Your task to perform on an android device: Play the last video I watched on Youtube Image 0: 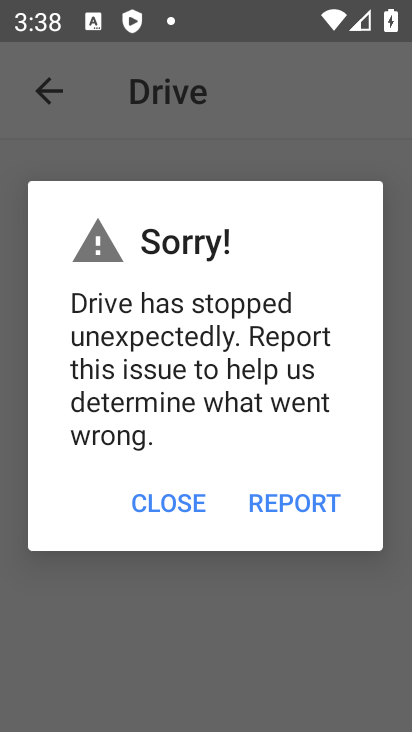
Step 0: press home button
Your task to perform on an android device: Play the last video I watched on Youtube Image 1: 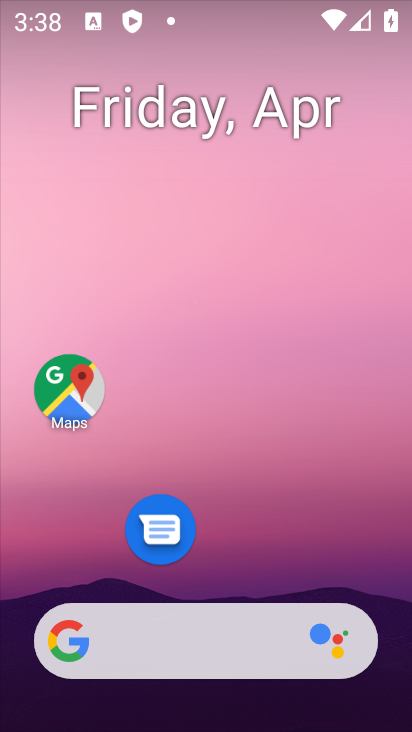
Step 1: drag from (275, 602) to (287, 346)
Your task to perform on an android device: Play the last video I watched on Youtube Image 2: 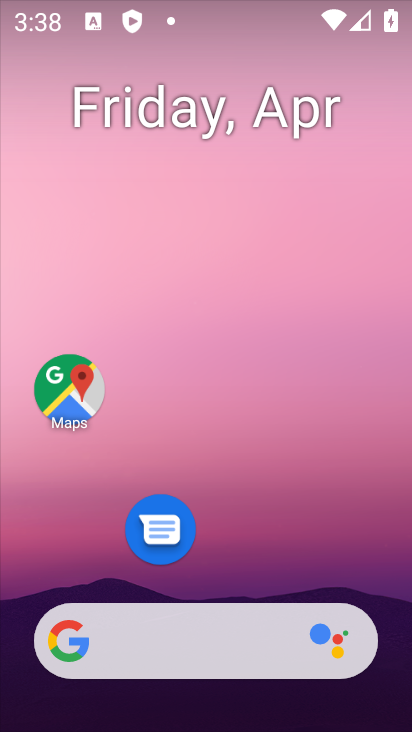
Step 2: drag from (271, 543) to (281, 340)
Your task to perform on an android device: Play the last video I watched on Youtube Image 3: 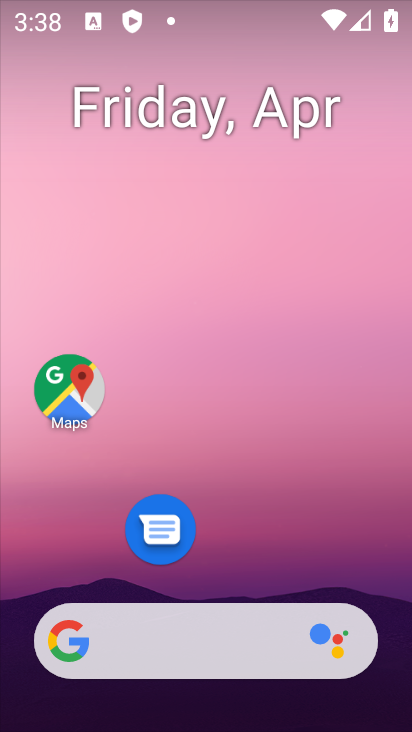
Step 3: drag from (290, 490) to (281, 149)
Your task to perform on an android device: Play the last video I watched on Youtube Image 4: 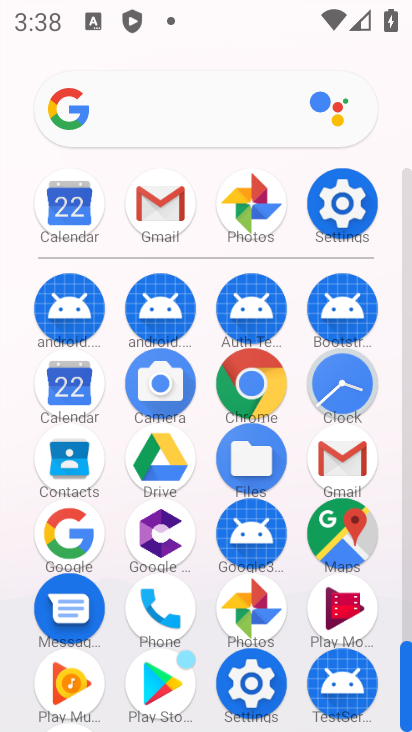
Step 4: click (405, 680)
Your task to perform on an android device: Play the last video I watched on Youtube Image 5: 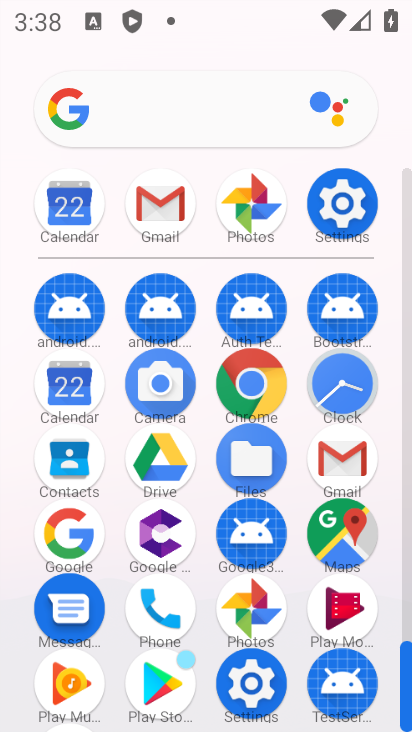
Step 5: drag from (378, 643) to (341, 240)
Your task to perform on an android device: Play the last video I watched on Youtube Image 6: 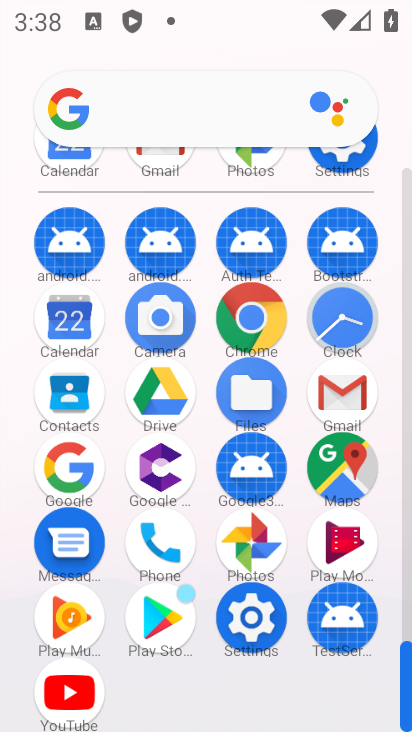
Step 6: click (89, 692)
Your task to perform on an android device: Play the last video I watched on Youtube Image 7: 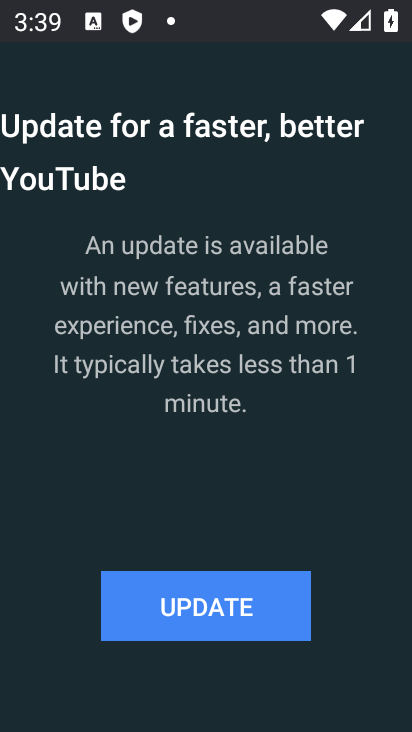
Step 7: task complete